Your task to perform on an android device: allow cookies in the chrome app Image 0: 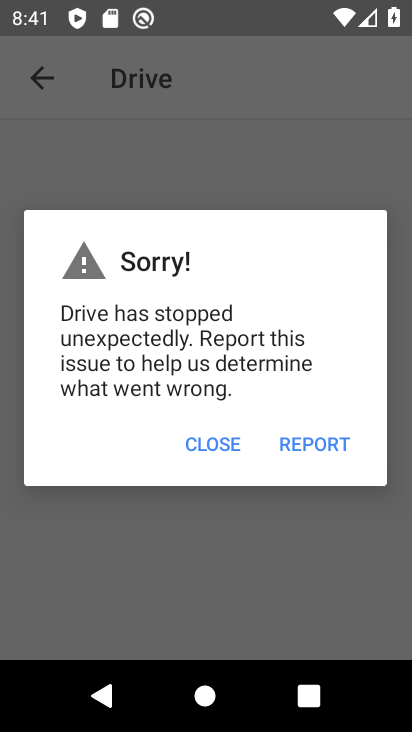
Step 0: click (211, 430)
Your task to perform on an android device: allow cookies in the chrome app Image 1: 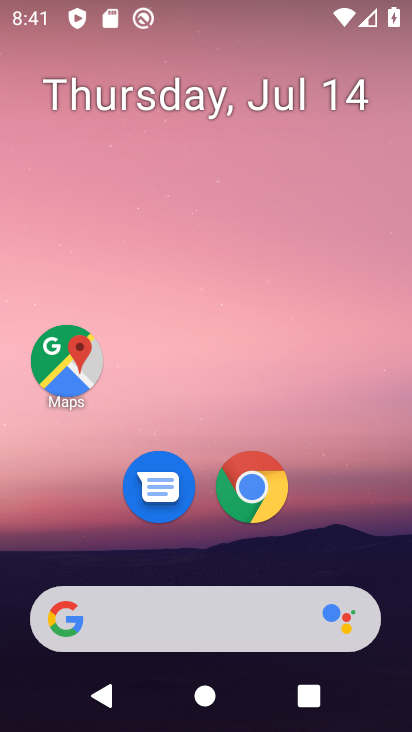
Step 1: click (262, 483)
Your task to perform on an android device: allow cookies in the chrome app Image 2: 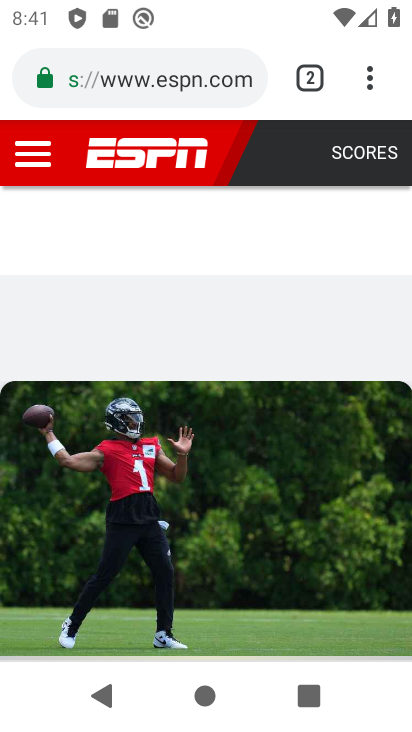
Step 2: drag from (366, 77) to (96, 538)
Your task to perform on an android device: allow cookies in the chrome app Image 3: 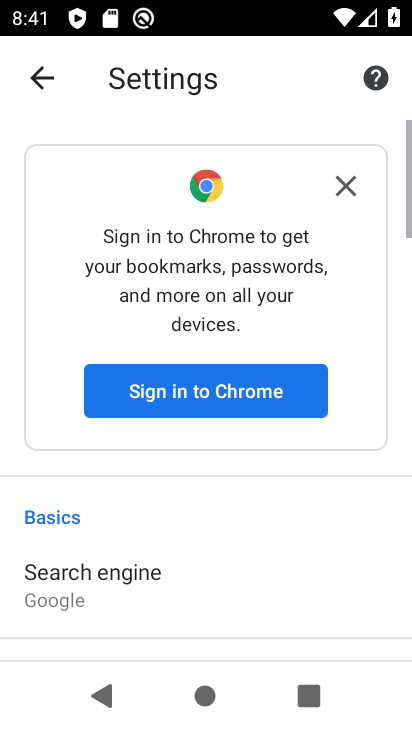
Step 3: drag from (116, 600) to (207, 184)
Your task to perform on an android device: allow cookies in the chrome app Image 4: 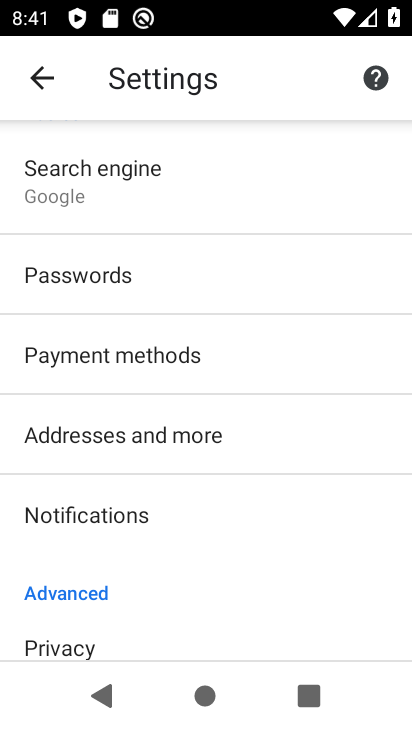
Step 4: drag from (139, 609) to (251, 127)
Your task to perform on an android device: allow cookies in the chrome app Image 5: 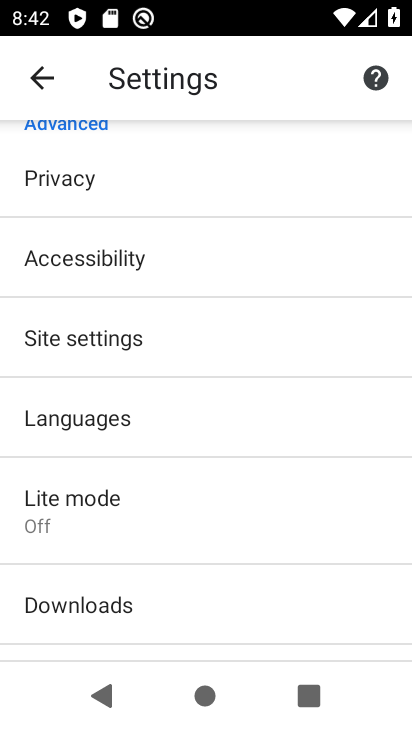
Step 5: click (119, 332)
Your task to perform on an android device: allow cookies in the chrome app Image 6: 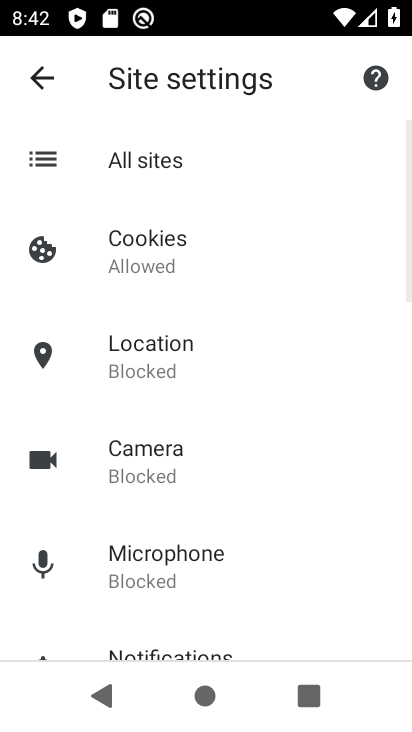
Step 6: click (166, 255)
Your task to perform on an android device: allow cookies in the chrome app Image 7: 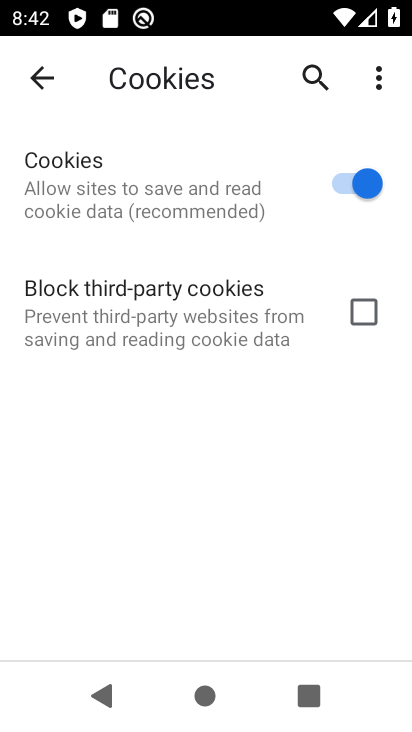
Step 7: task complete